Your task to perform on an android device: turn off picture-in-picture Image 0: 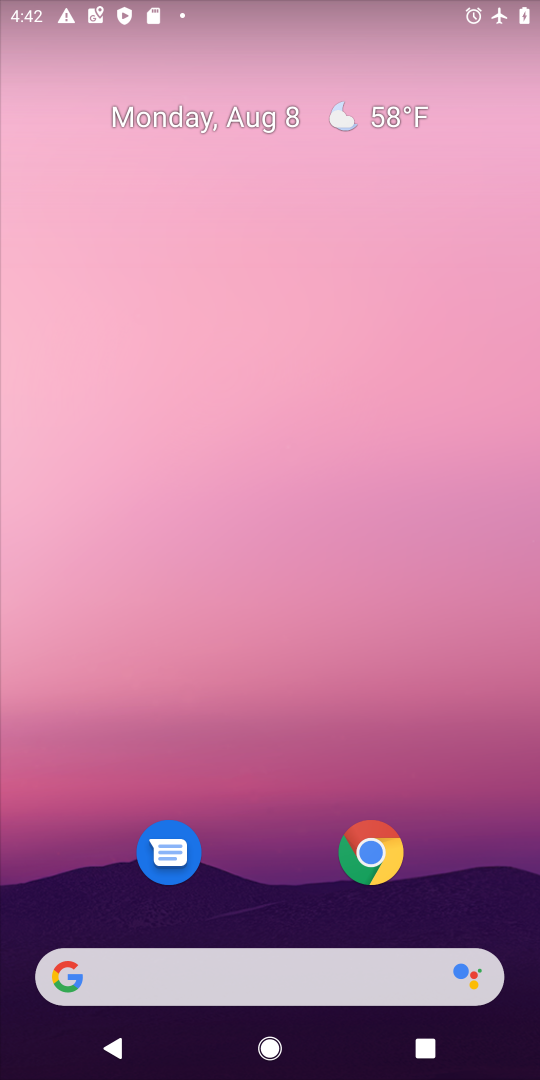
Step 0: drag from (310, 680) to (458, 49)
Your task to perform on an android device: turn off picture-in-picture Image 1: 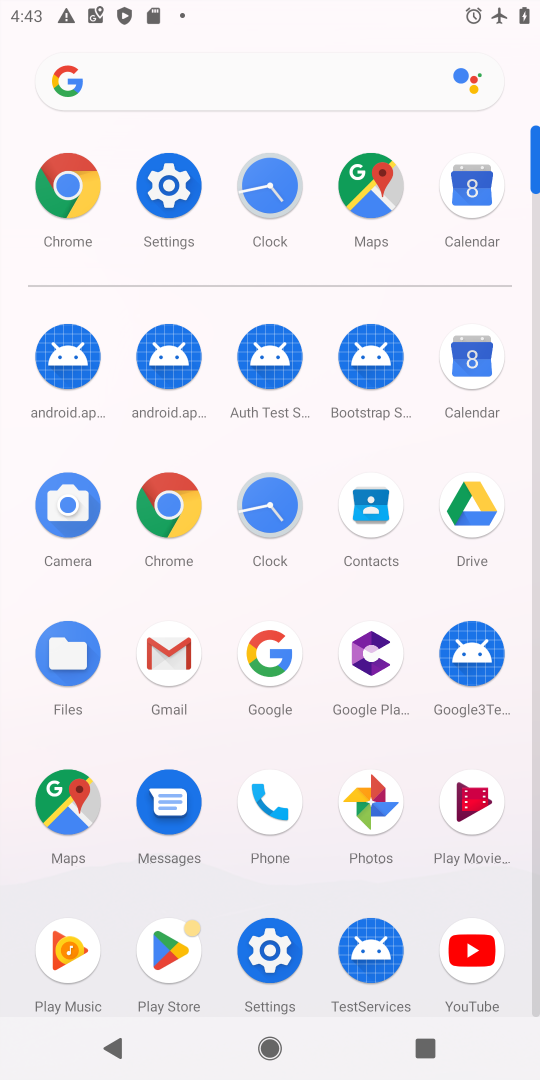
Step 1: click (167, 508)
Your task to perform on an android device: turn off picture-in-picture Image 2: 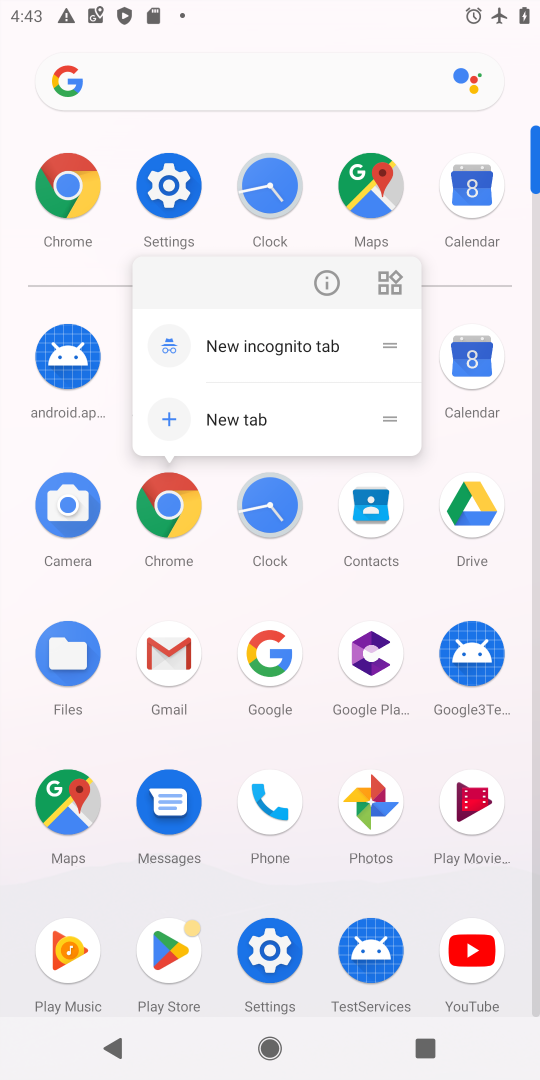
Step 2: click (329, 283)
Your task to perform on an android device: turn off picture-in-picture Image 3: 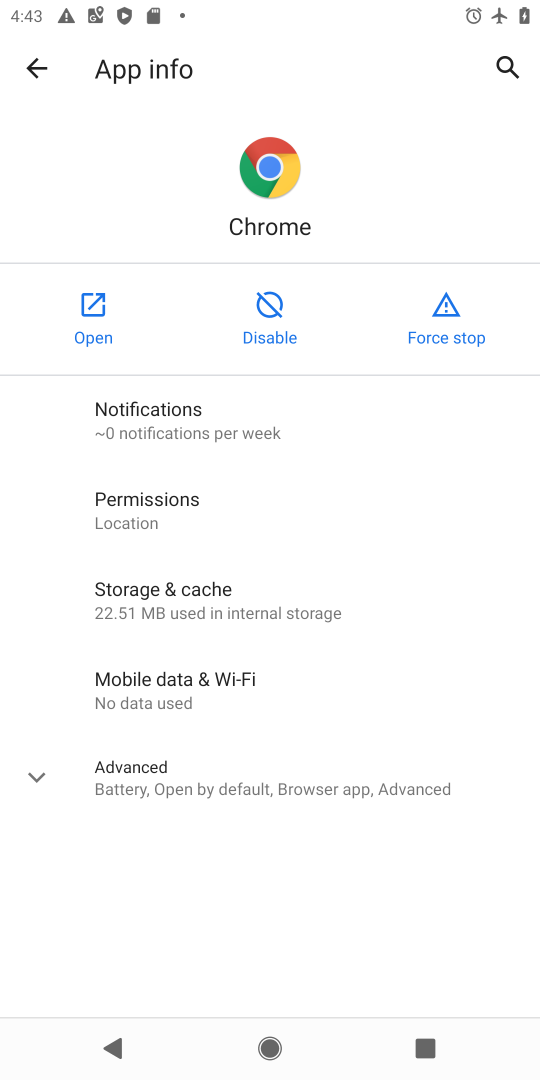
Step 3: click (178, 803)
Your task to perform on an android device: turn off picture-in-picture Image 4: 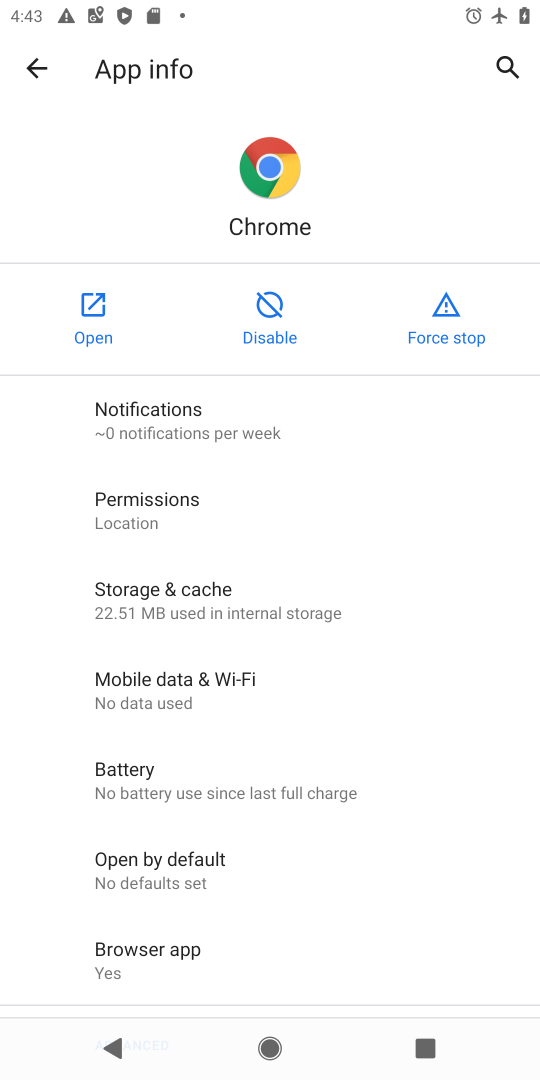
Step 4: drag from (235, 961) to (425, 358)
Your task to perform on an android device: turn off picture-in-picture Image 5: 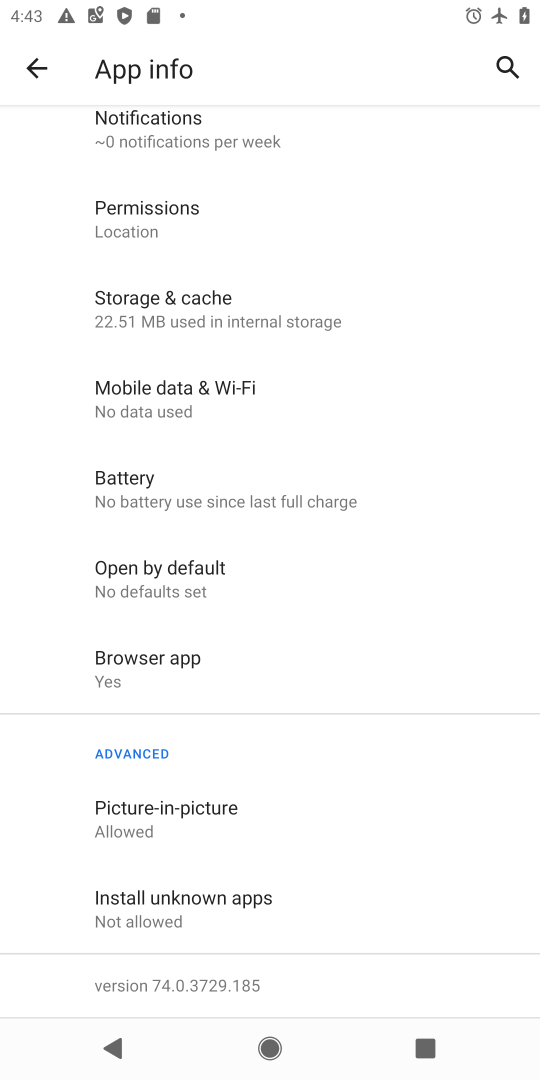
Step 5: click (232, 829)
Your task to perform on an android device: turn off picture-in-picture Image 6: 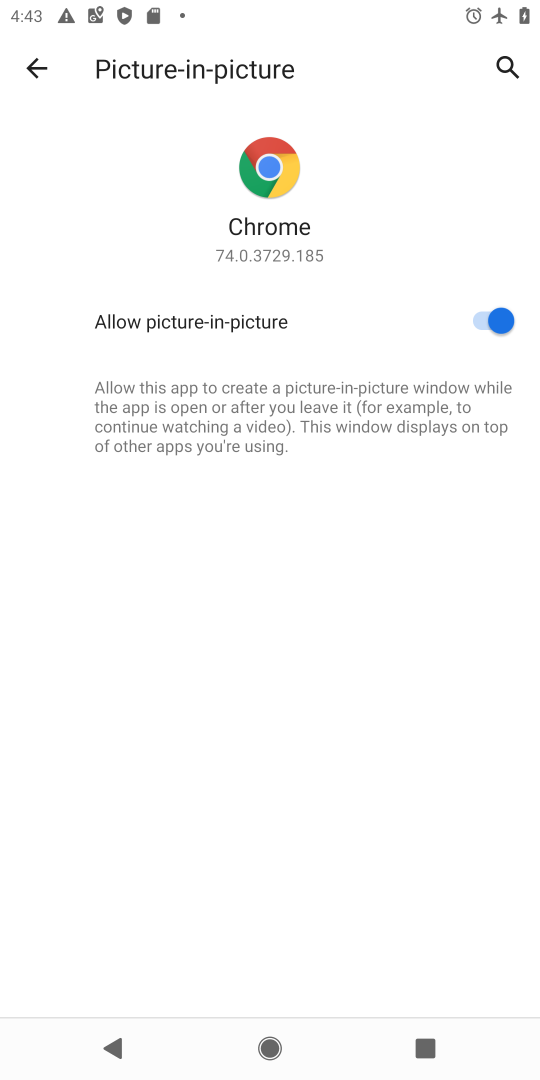
Step 6: click (497, 323)
Your task to perform on an android device: turn off picture-in-picture Image 7: 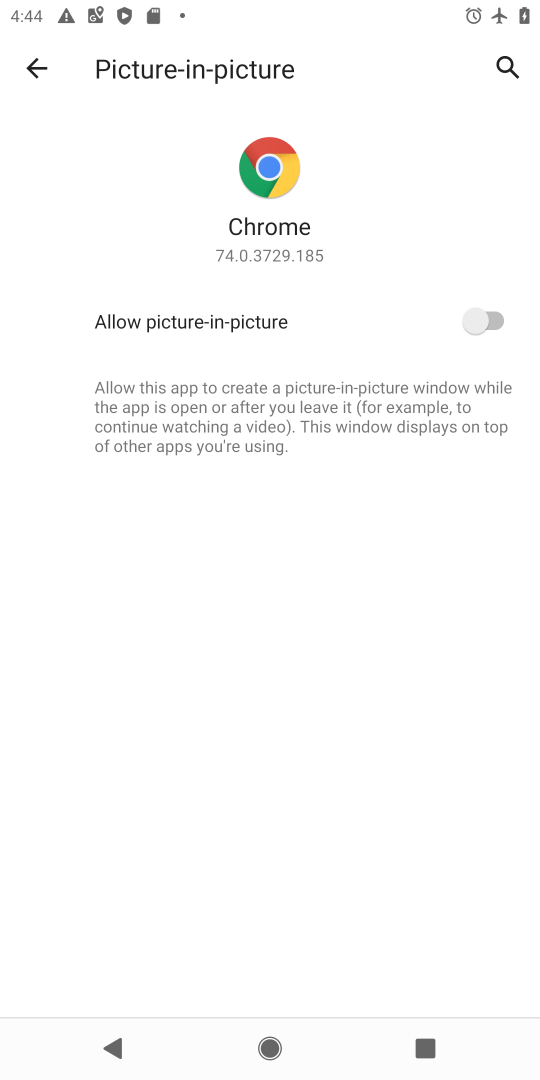
Step 7: task complete